Your task to perform on an android device: Search for Italian restaurants on Maps Image 0: 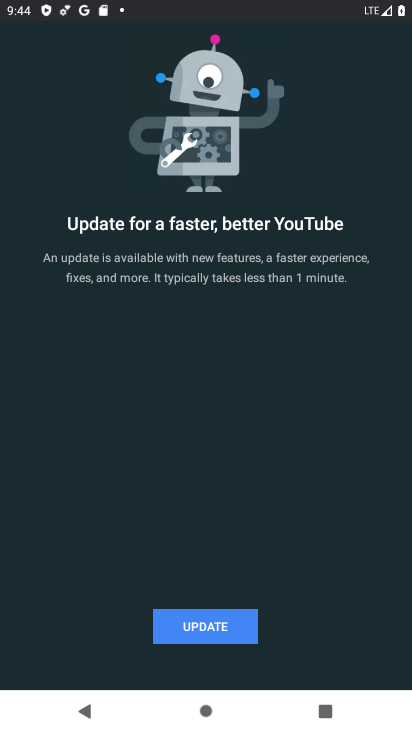
Step 0: press home button
Your task to perform on an android device: Search for Italian restaurants on Maps Image 1: 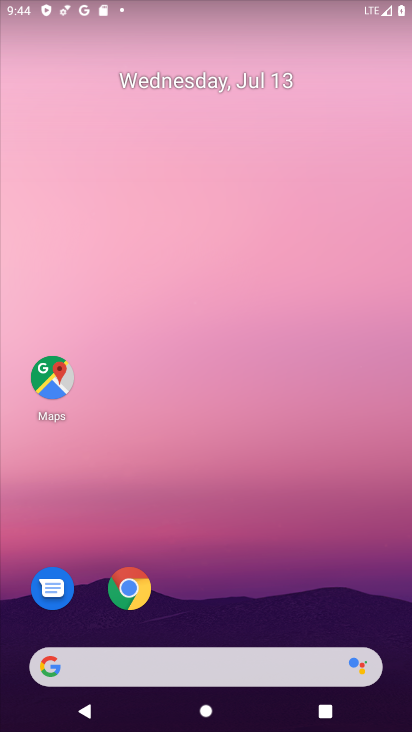
Step 1: click (54, 382)
Your task to perform on an android device: Search for Italian restaurants on Maps Image 2: 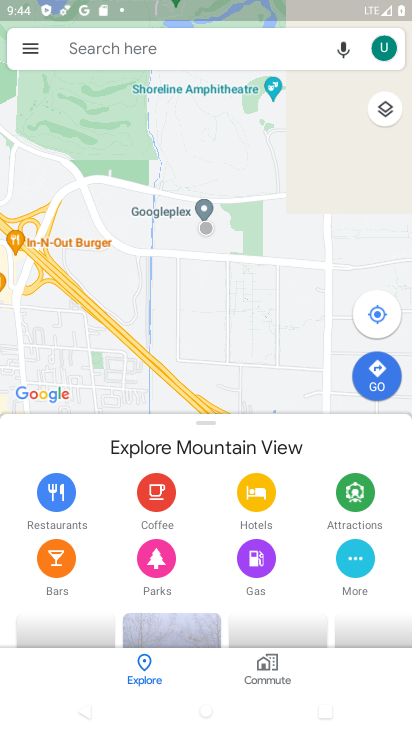
Step 2: click (207, 52)
Your task to perform on an android device: Search for Italian restaurants on Maps Image 3: 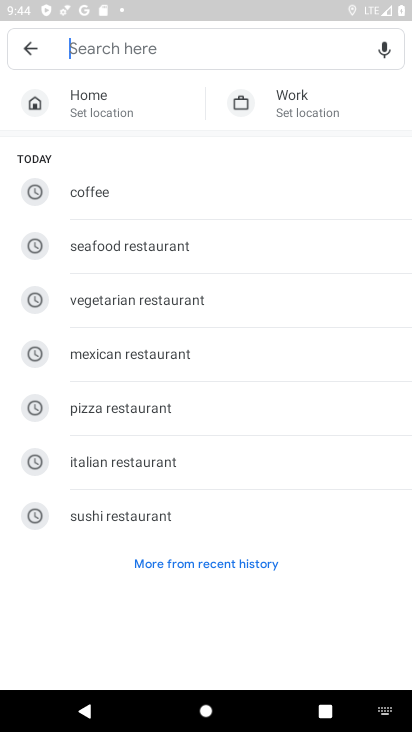
Step 3: click (162, 466)
Your task to perform on an android device: Search for Italian restaurants on Maps Image 4: 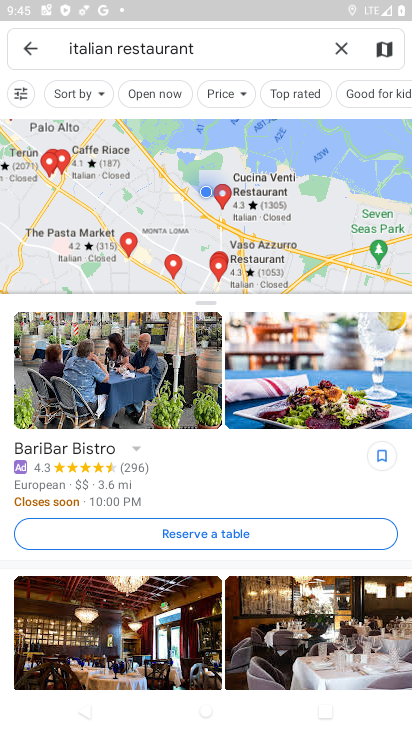
Step 4: task complete